Your task to perform on an android device: turn on sleep mode Image 0: 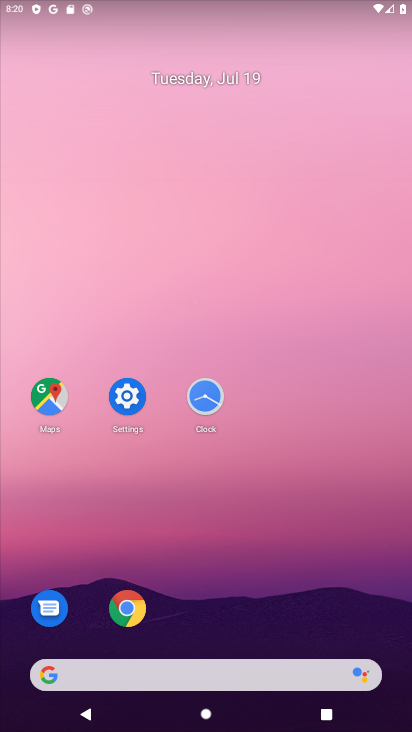
Step 0: drag from (404, 647) to (389, 128)
Your task to perform on an android device: turn on sleep mode Image 1: 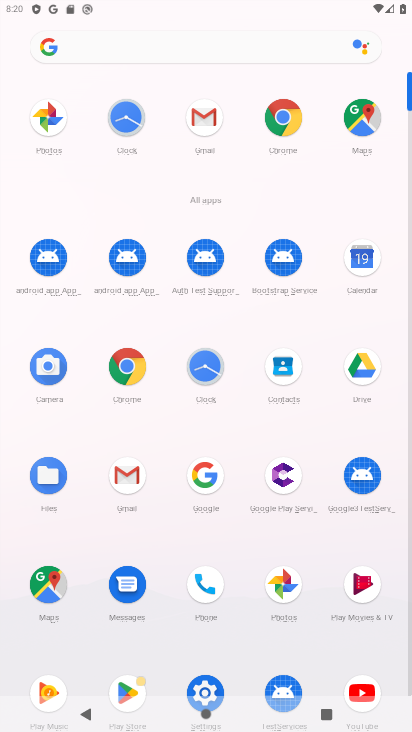
Step 1: click (199, 686)
Your task to perform on an android device: turn on sleep mode Image 2: 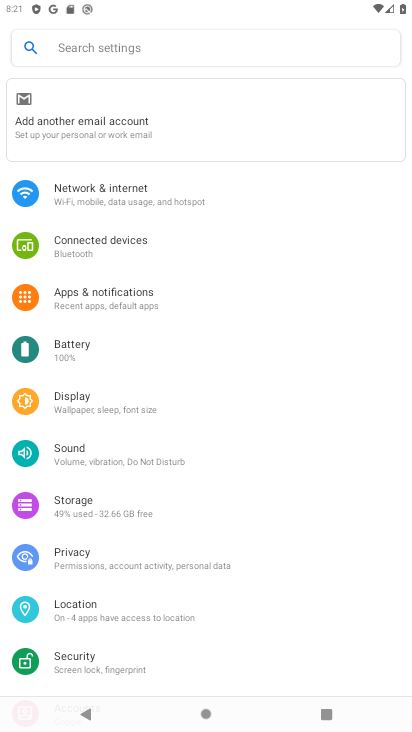
Step 2: click (59, 396)
Your task to perform on an android device: turn on sleep mode Image 3: 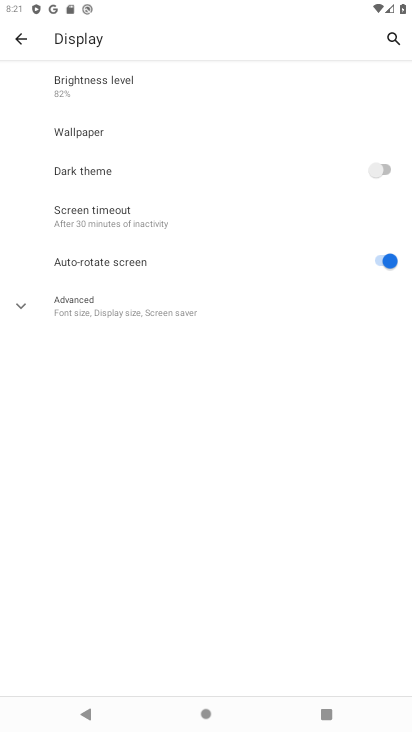
Step 3: click (71, 216)
Your task to perform on an android device: turn on sleep mode Image 4: 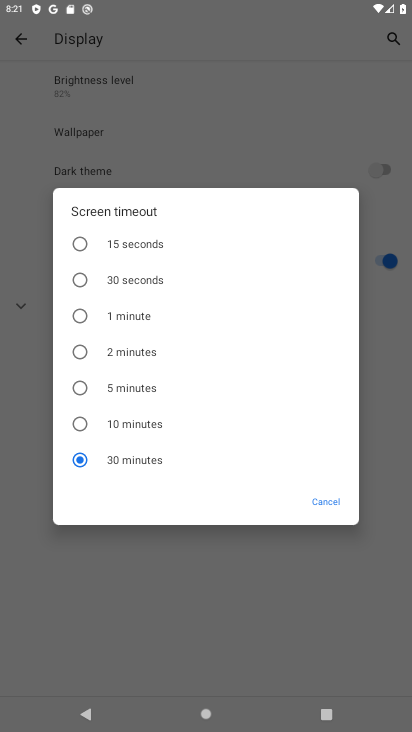
Step 4: task complete